Your task to perform on an android device: open app "Etsy: Buy & Sell Unique Items" (install if not already installed) Image 0: 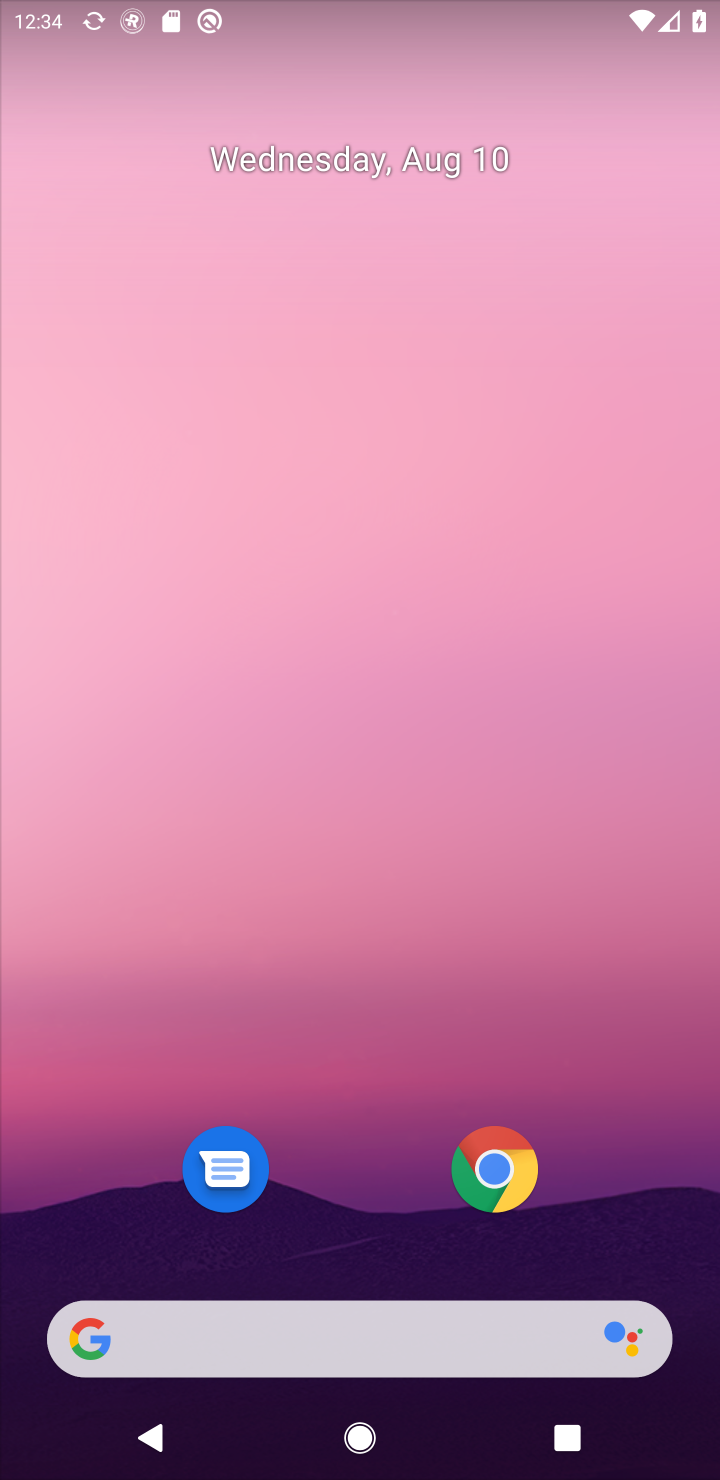
Step 0: press home button
Your task to perform on an android device: open app "Etsy: Buy & Sell Unique Items" (install if not already installed) Image 1: 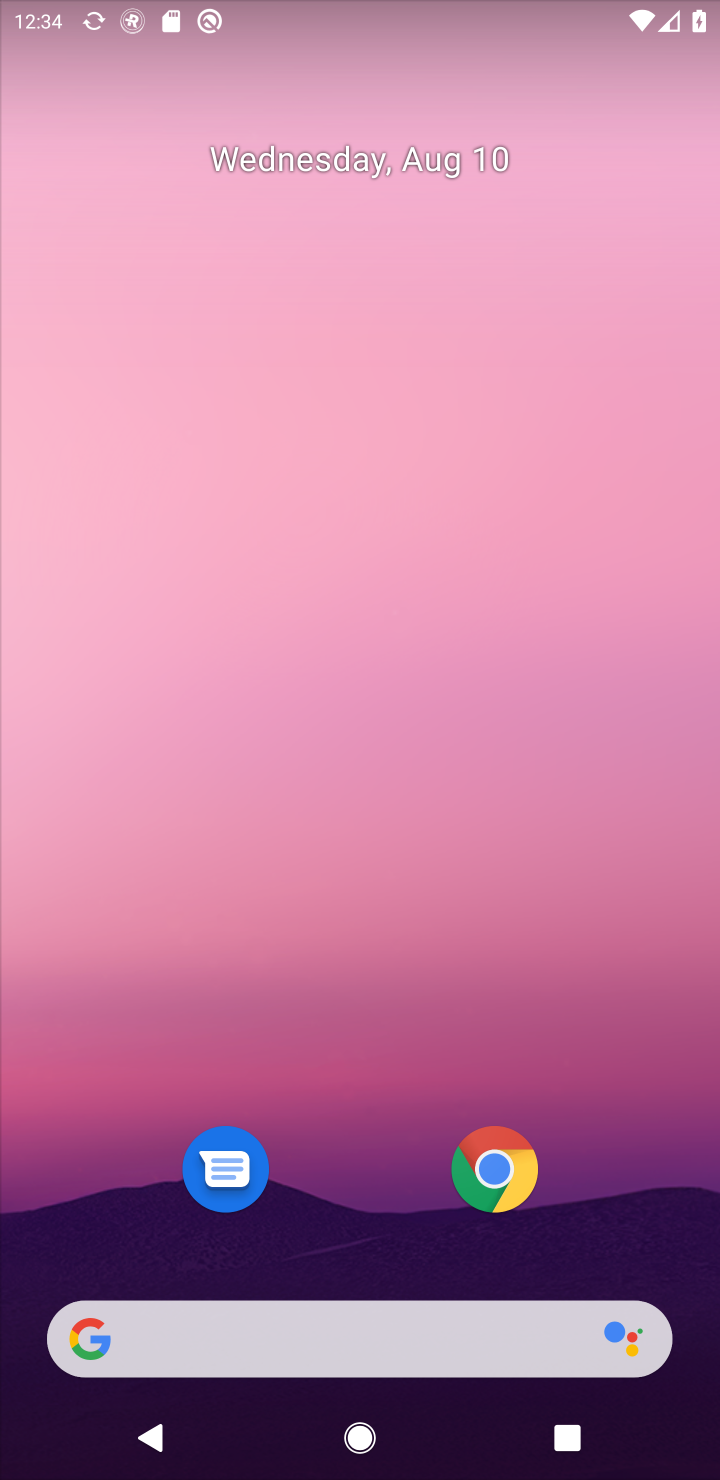
Step 1: drag from (624, 1147) to (638, 131)
Your task to perform on an android device: open app "Etsy: Buy & Sell Unique Items" (install if not already installed) Image 2: 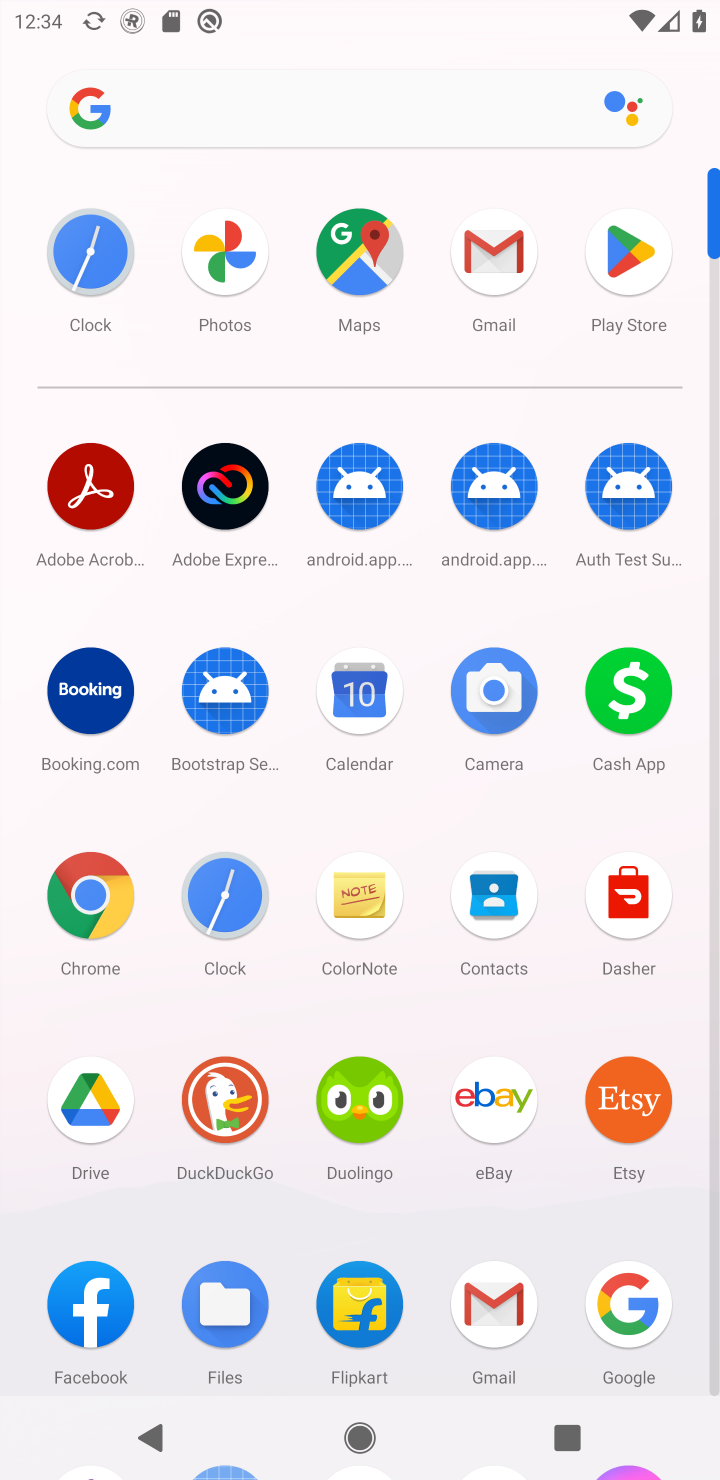
Step 2: click (632, 261)
Your task to perform on an android device: open app "Etsy: Buy & Sell Unique Items" (install if not already installed) Image 3: 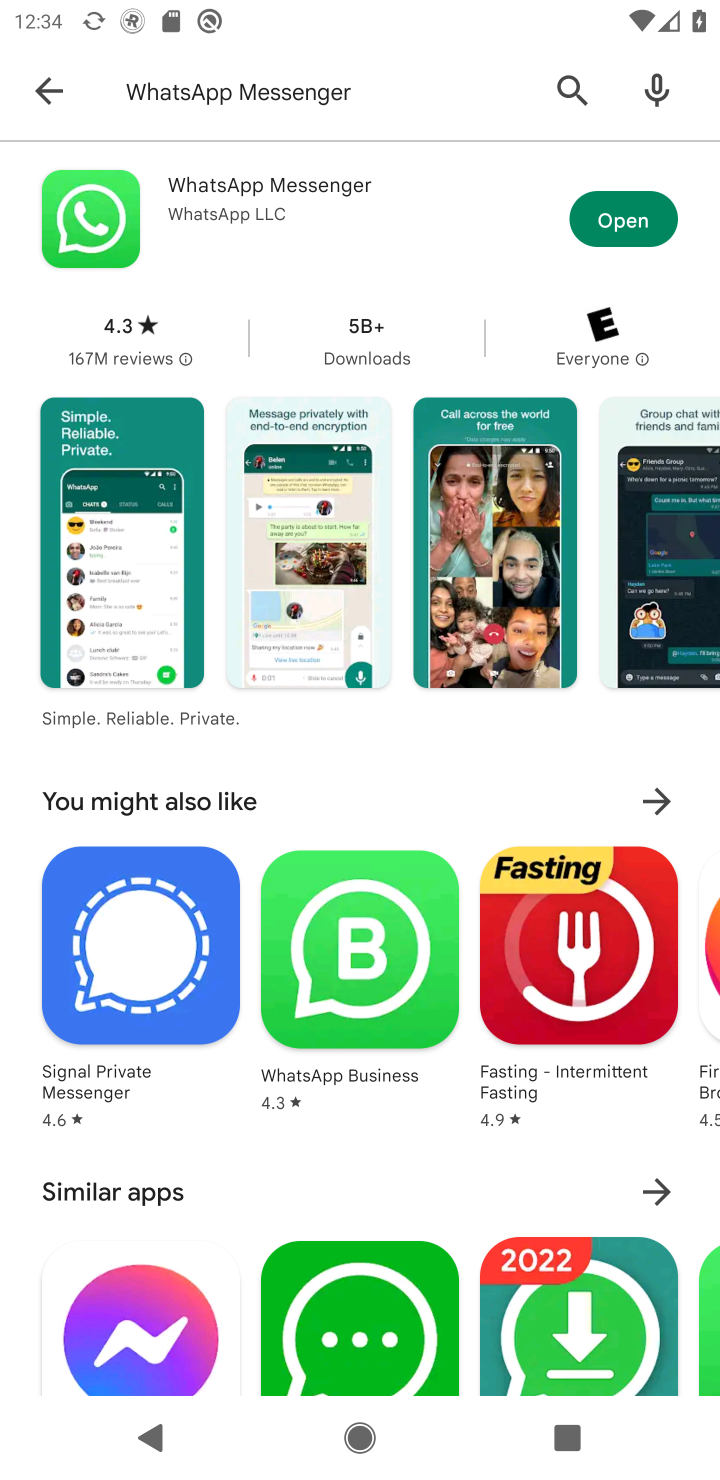
Step 3: click (559, 91)
Your task to perform on an android device: open app "Etsy: Buy & Sell Unique Items" (install if not already installed) Image 4: 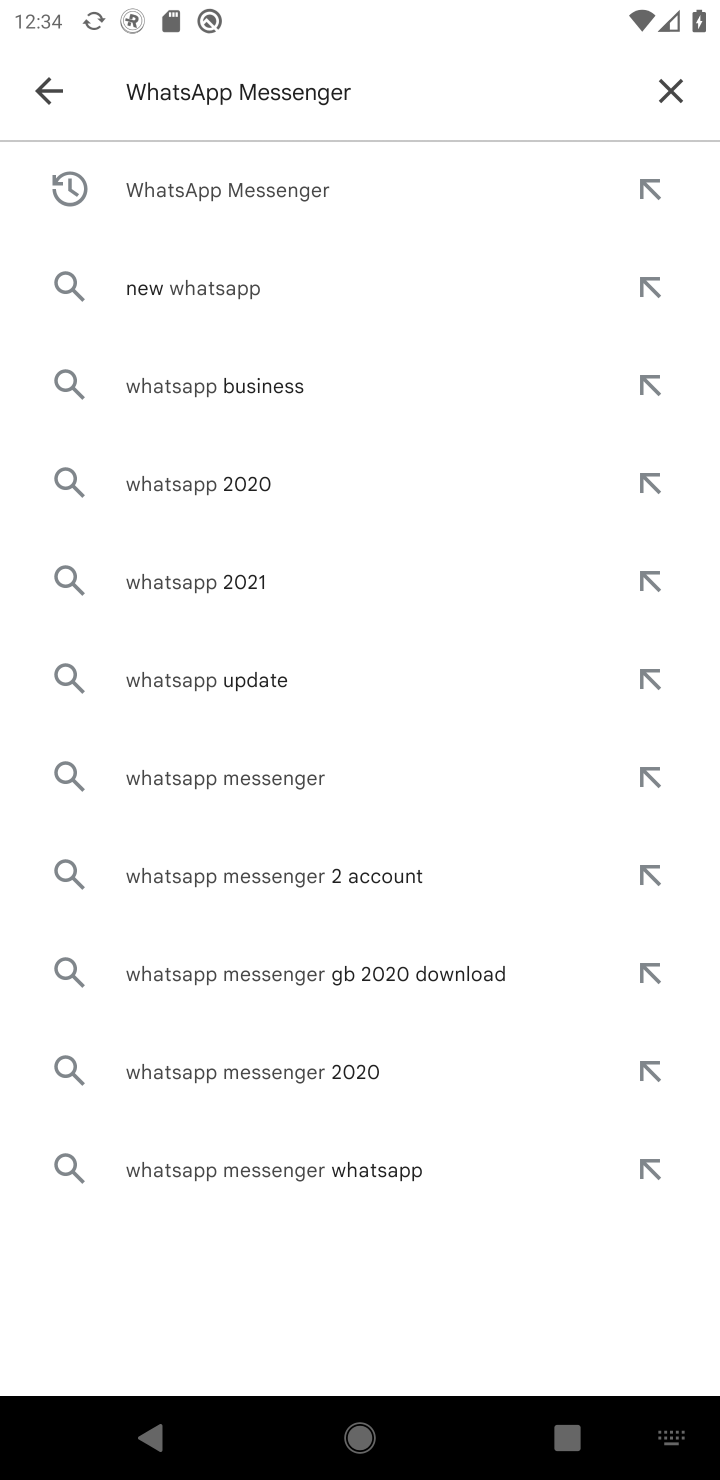
Step 4: click (677, 91)
Your task to perform on an android device: open app "Etsy: Buy & Sell Unique Items" (install if not already installed) Image 5: 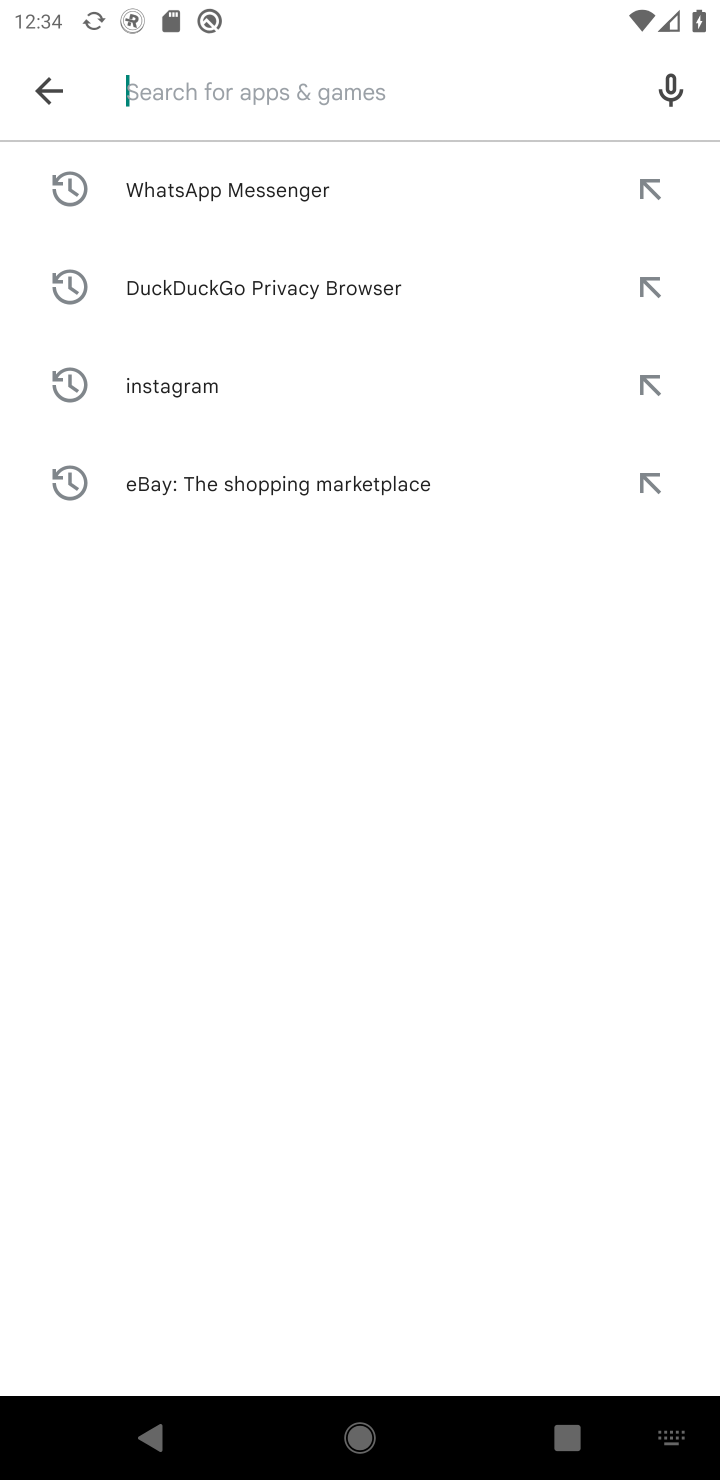
Step 5: click (302, 89)
Your task to perform on an android device: open app "Etsy: Buy & Sell Unique Items" (install if not already installed) Image 6: 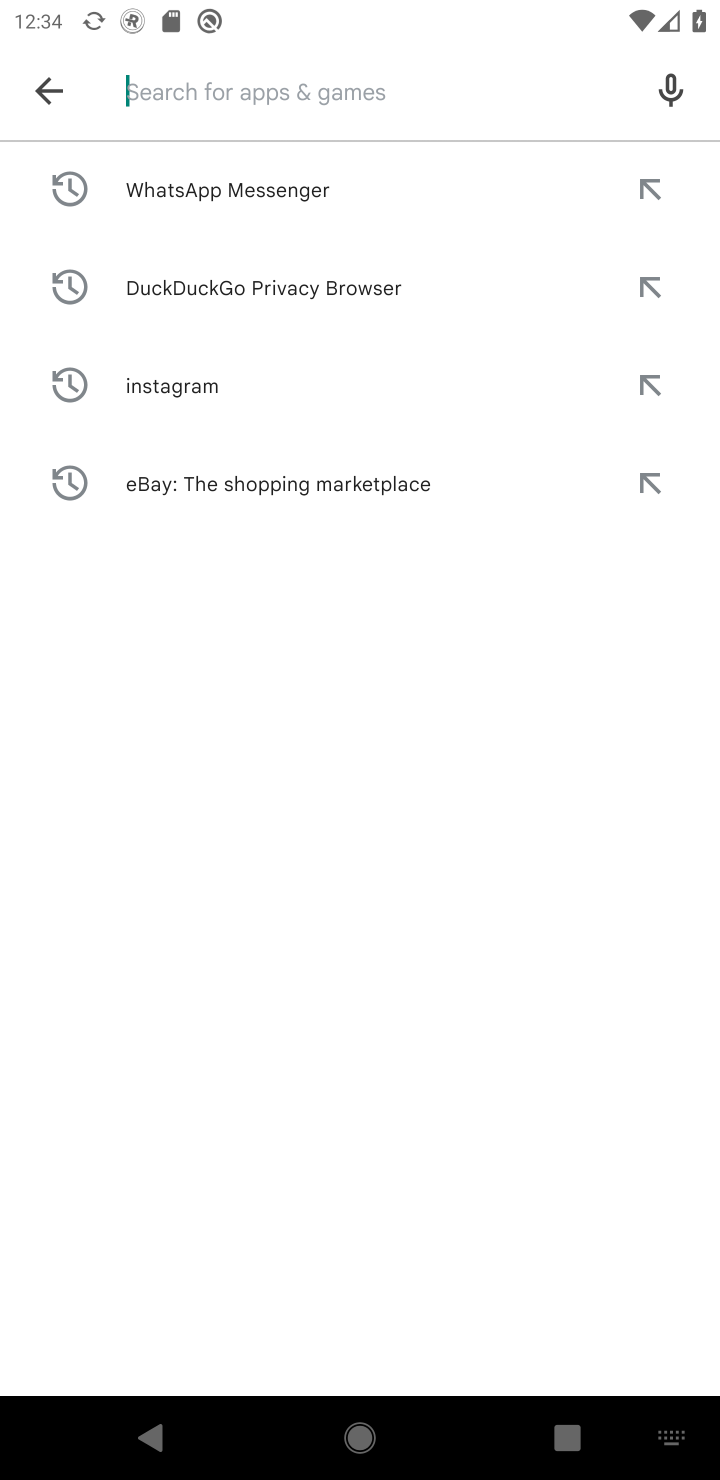
Step 6: click (288, 97)
Your task to perform on an android device: open app "Etsy: Buy & Sell Unique Items" (install if not already installed) Image 7: 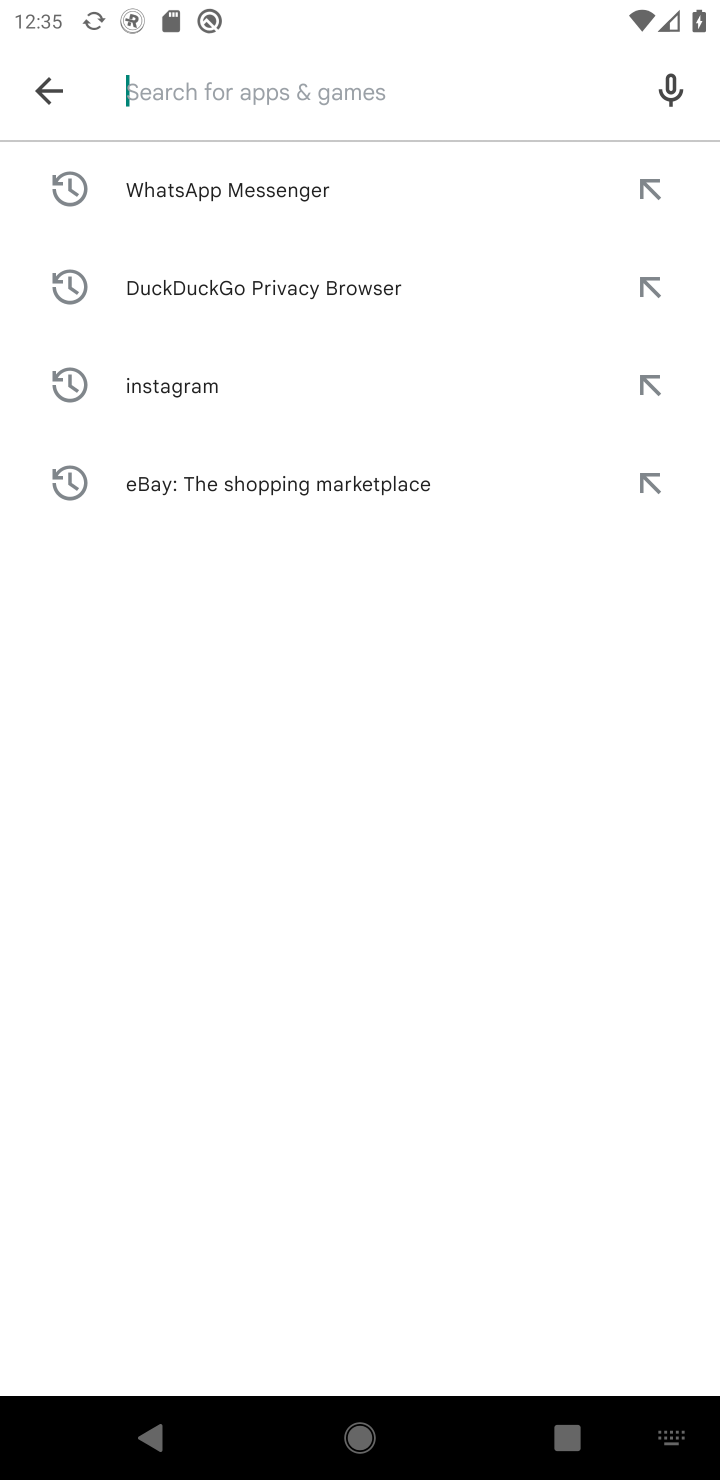
Step 7: type "Etsy: Buy & Sell Unique Items"
Your task to perform on an android device: open app "Etsy: Buy & Sell Unique Items" (install if not already installed) Image 8: 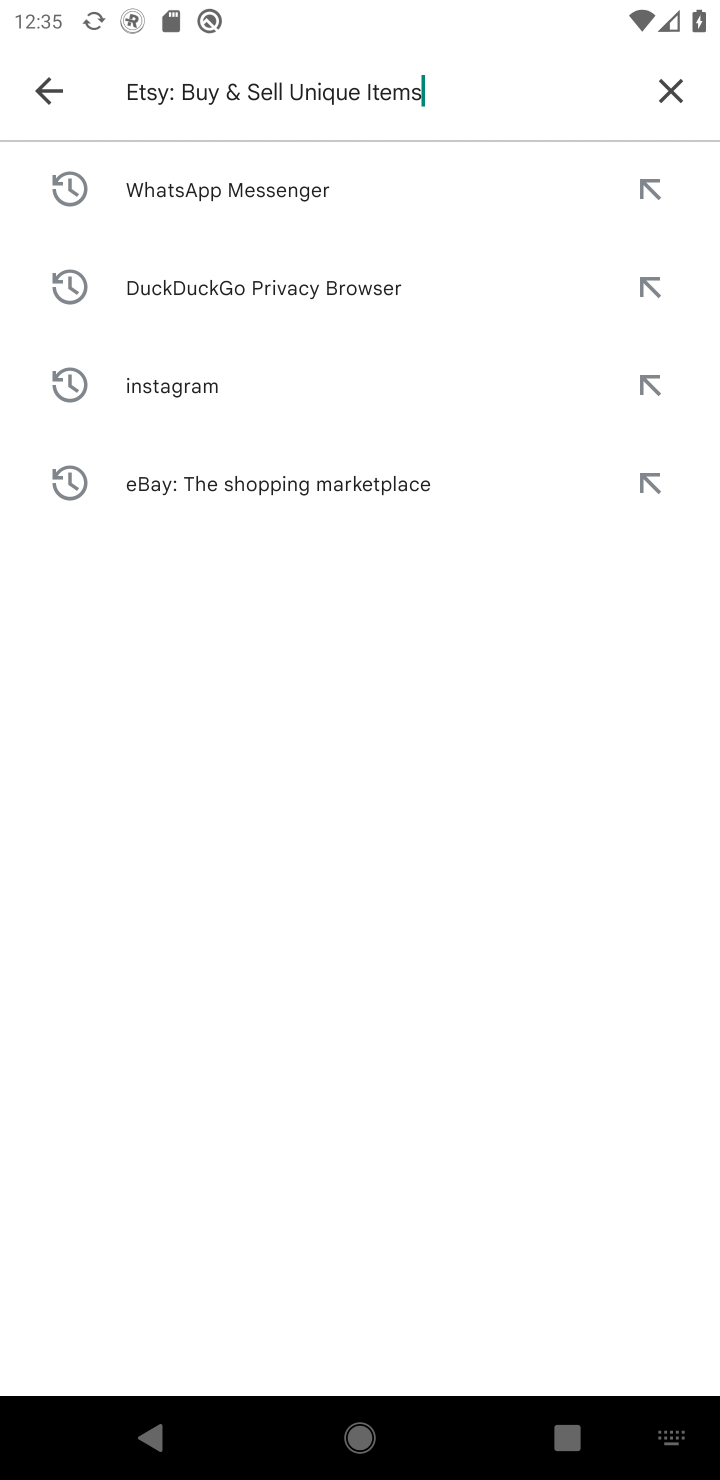
Step 8: press enter
Your task to perform on an android device: open app "Etsy: Buy & Sell Unique Items" (install if not already installed) Image 9: 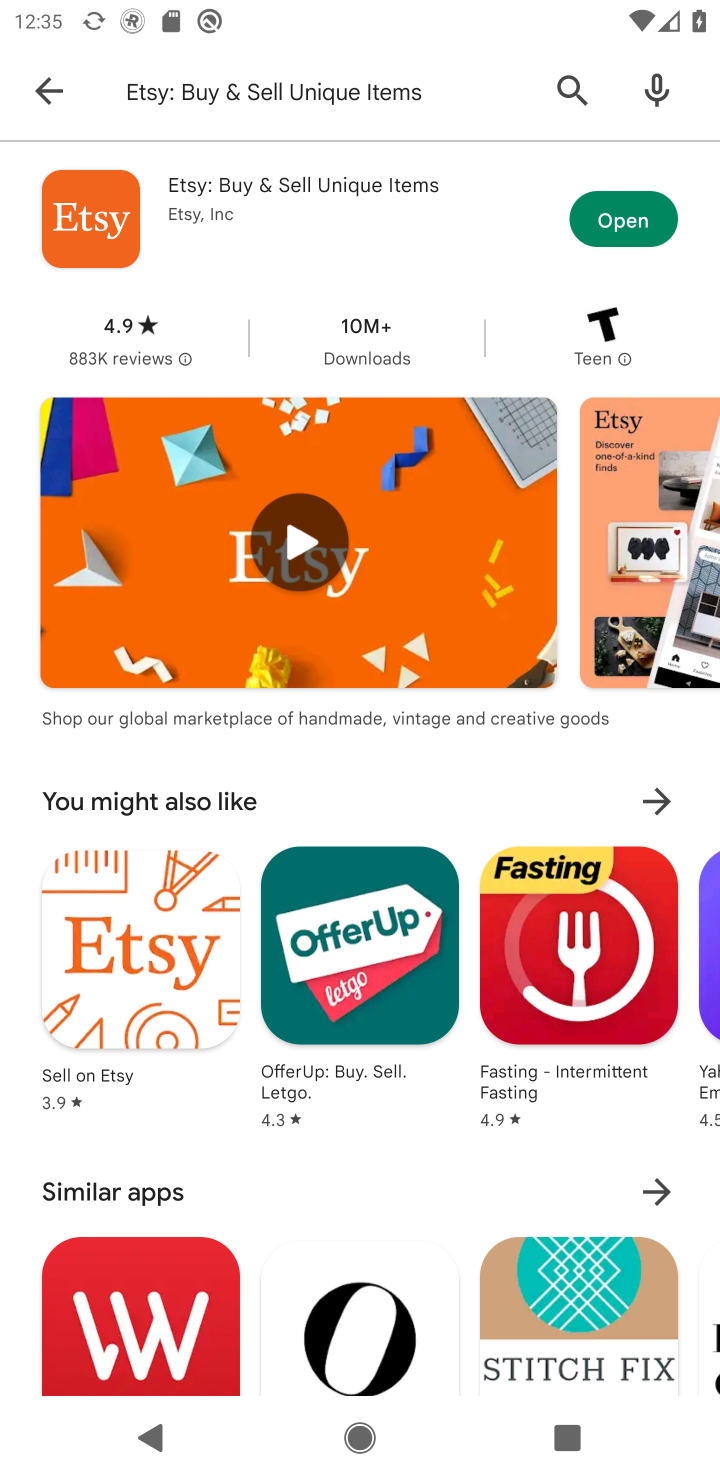
Step 9: click (620, 224)
Your task to perform on an android device: open app "Etsy: Buy & Sell Unique Items" (install if not already installed) Image 10: 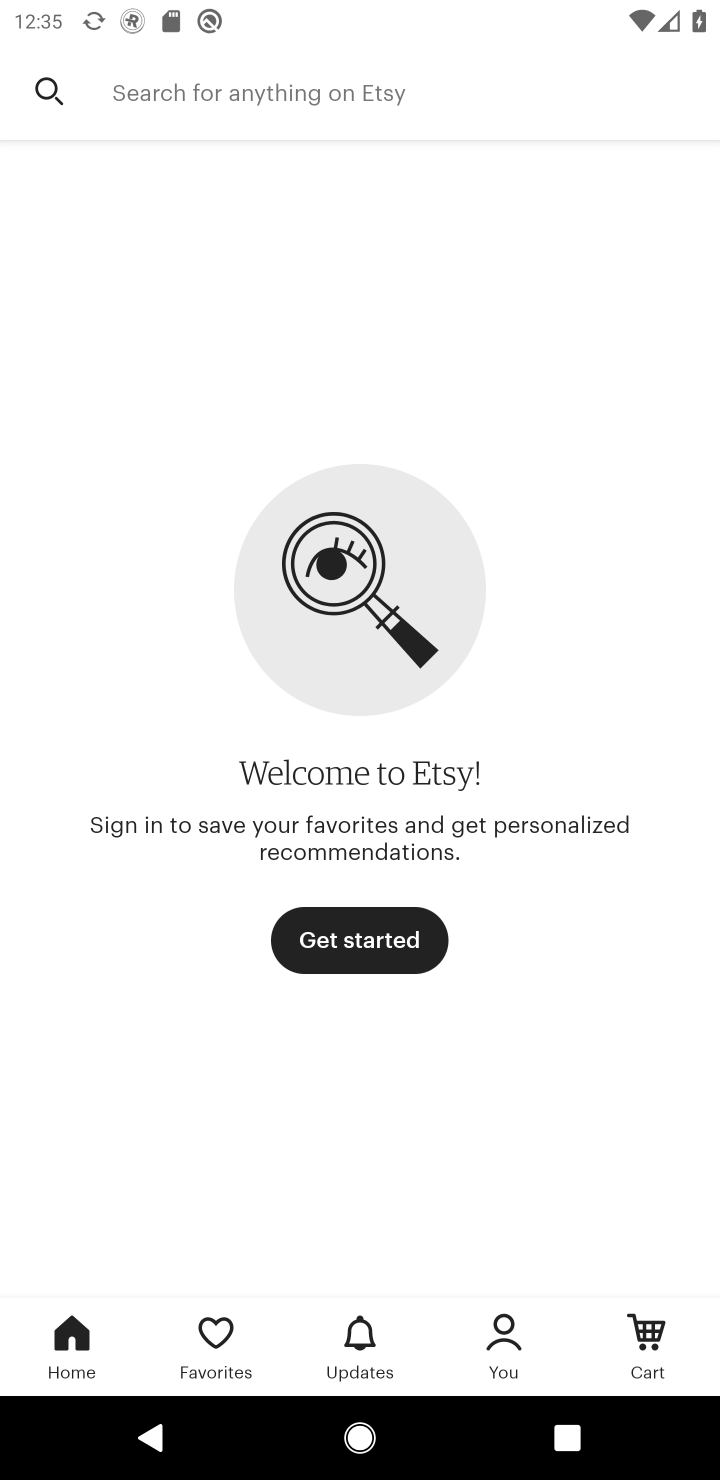
Step 10: task complete